Your task to perform on an android device: turn on the 12-hour format for clock Image 0: 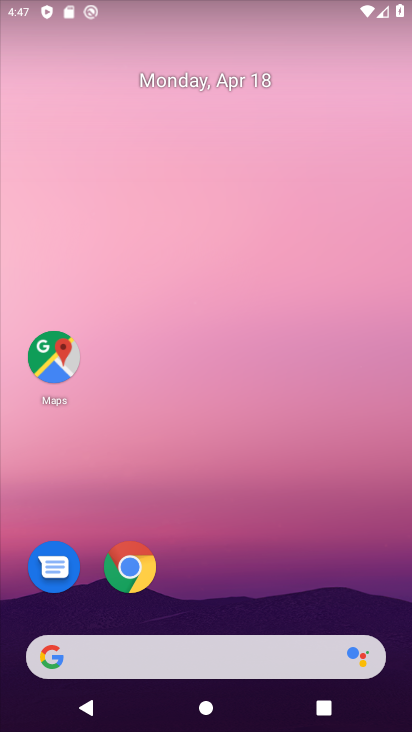
Step 0: drag from (258, 515) to (293, 114)
Your task to perform on an android device: turn on the 12-hour format for clock Image 1: 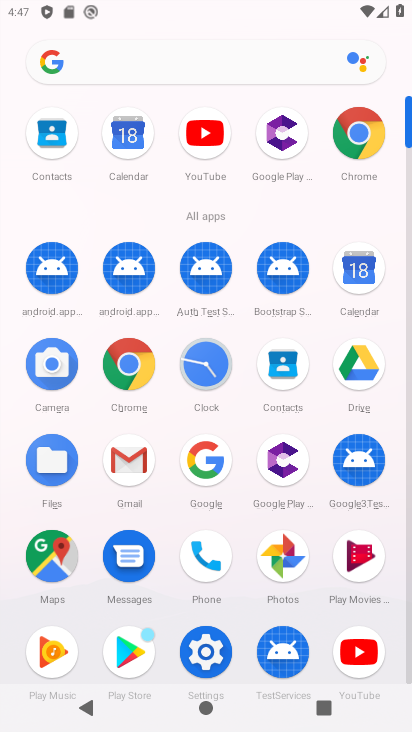
Step 1: click (199, 366)
Your task to perform on an android device: turn on the 12-hour format for clock Image 2: 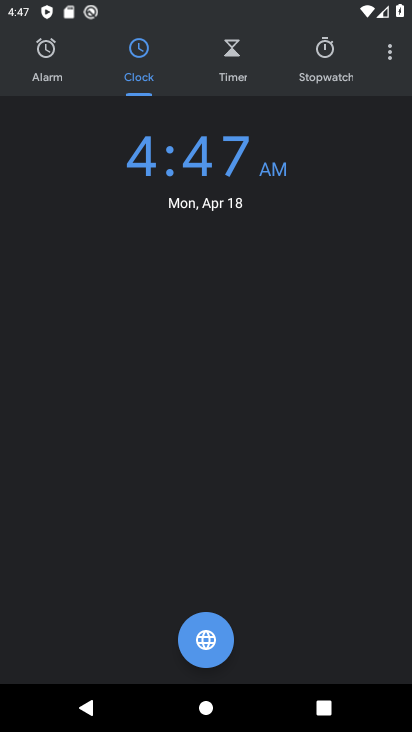
Step 2: click (388, 61)
Your task to perform on an android device: turn on the 12-hour format for clock Image 3: 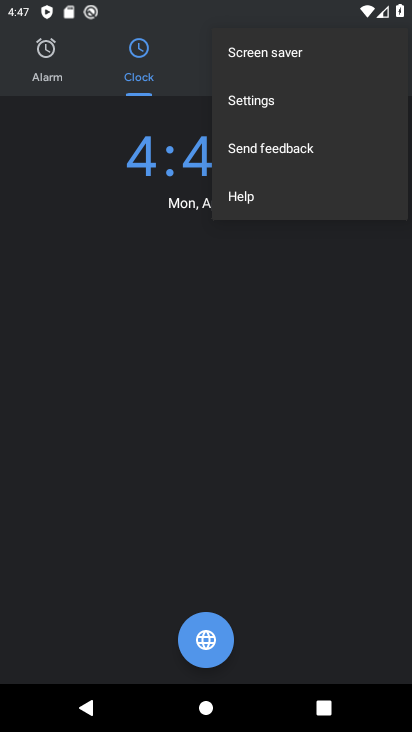
Step 3: click (340, 105)
Your task to perform on an android device: turn on the 12-hour format for clock Image 4: 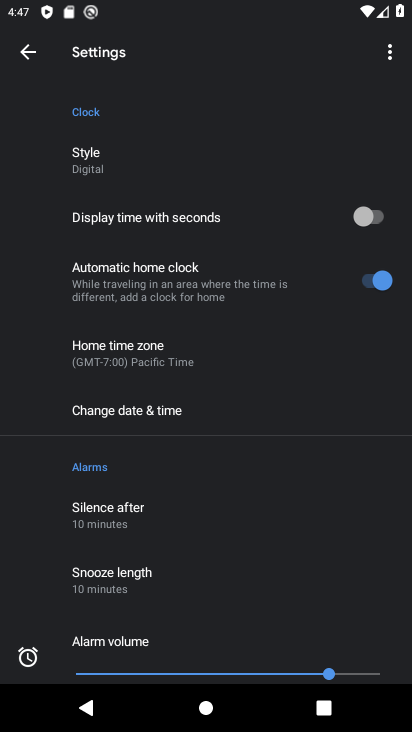
Step 4: click (186, 401)
Your task to perform on an android device: turn on the 12-hour format for clock Image 5: 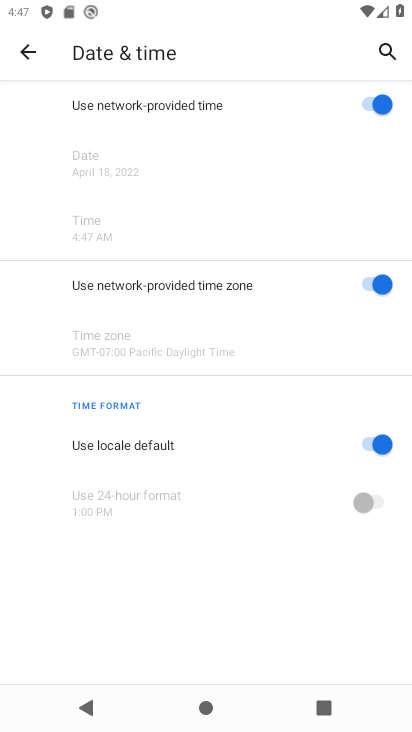
Step 5: task complete